Your task to perform on an android device: turn on notifications settings in the gmail app Image 0: 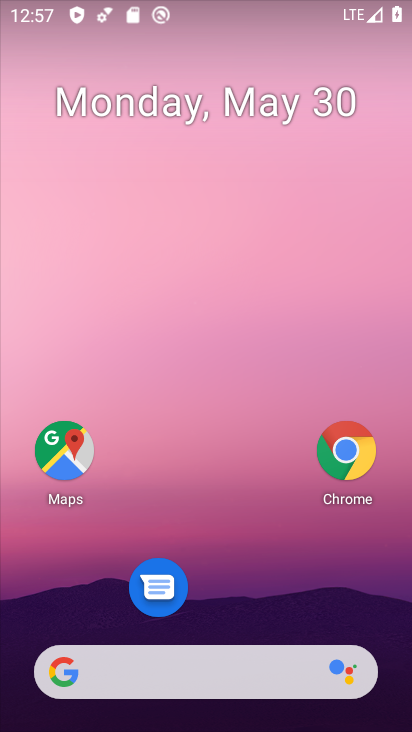
Step 0: drag from (242, 576) to (228, 100)
Your task to perform on an android device: turn on notifications settings in the gmail app Image 1: 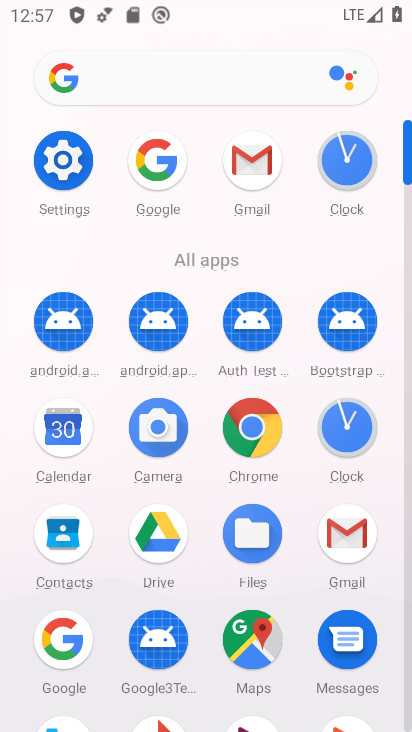
Step 1: click (246, 160)
Your task to perform on an android device: turn on notifications settings in the gmail app Image 2: 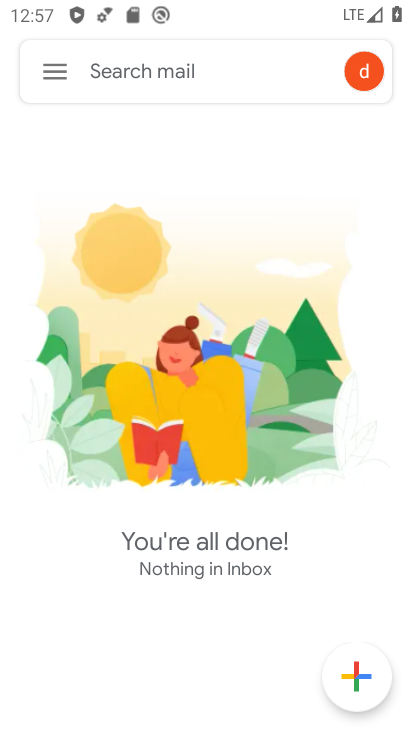
Step 2: click (36, 67)
Your task to perform on an android device: turn on notifications settings in the gmail app Image 3: 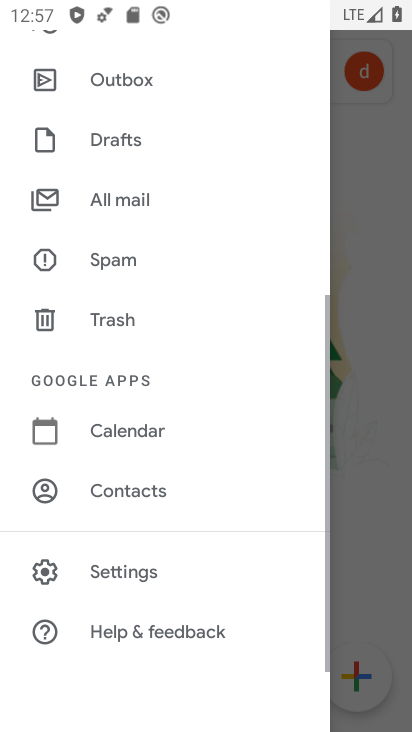
Step 3: click (148, 575)
Your task to perform on an android device: turn on notifications settings in the gmail app Image 4: 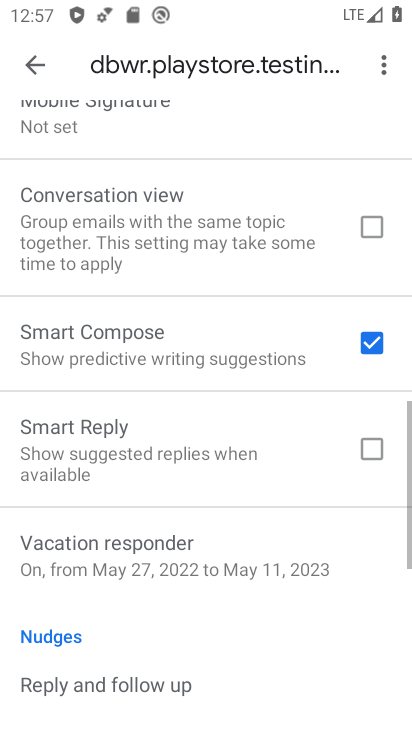
Step 4: drag from (191, 600) to (298, 719)
Your task to perform on an android device: turn on notifications settings in the gmail app Image 5: 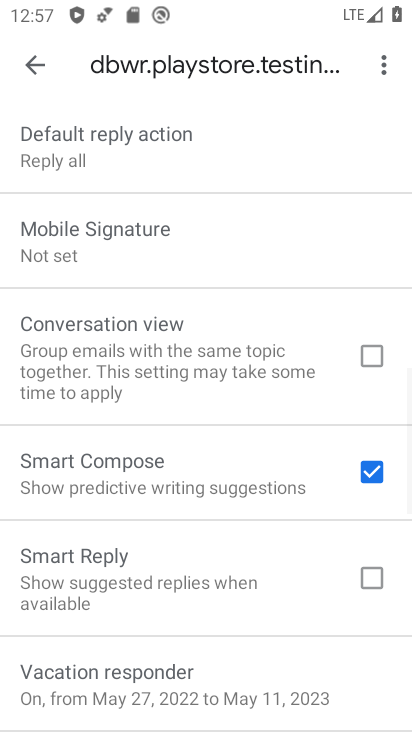
Step 5: drag from (115, 265) to (169, 614)
Your task to perform on an android device: turn on notifications settings in the gmail app Image 6: 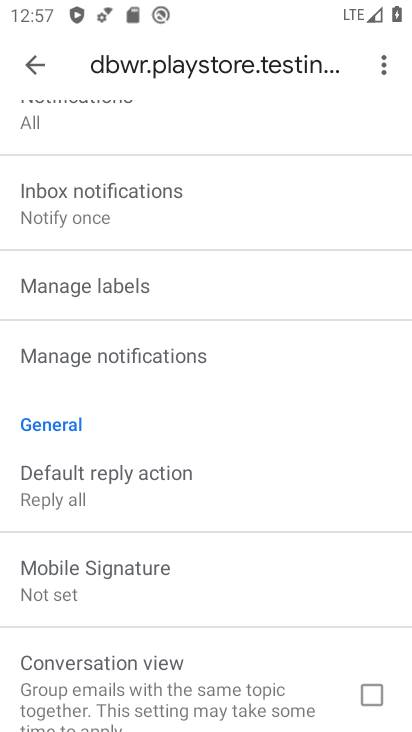
Step 6: drag from (107, 203) to (143, 436)
Your task to perform on an android device: turn on notifications settings in the gmail app Image 7: 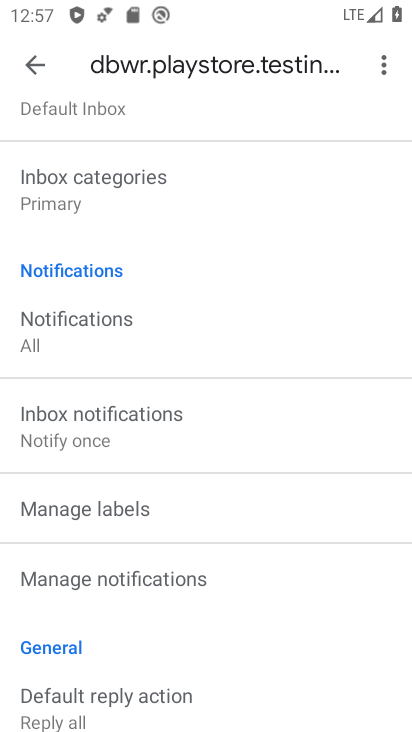
Step 7: click (87, 328)
Your task to perform on an android device: turn on notifications settings in the gmail app Image 8: 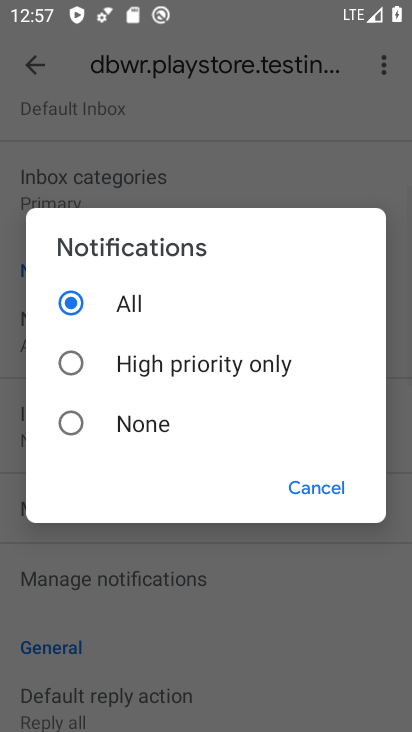
Step 8: task complete